Your task to perform on an android device: check data usage Image 0: 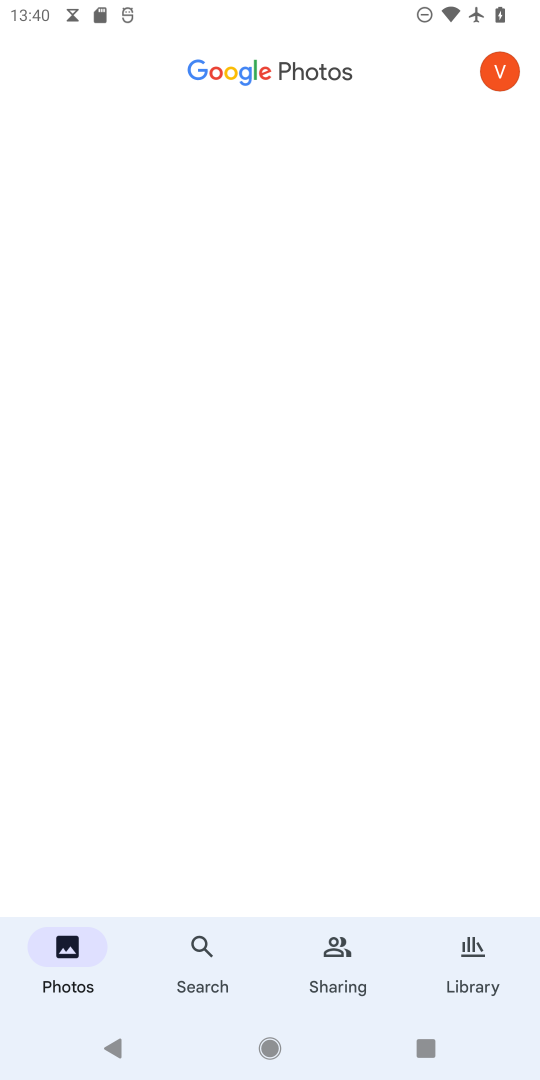
Step 0: press home button
Your task to perform on an android device: check data usage Image 1: 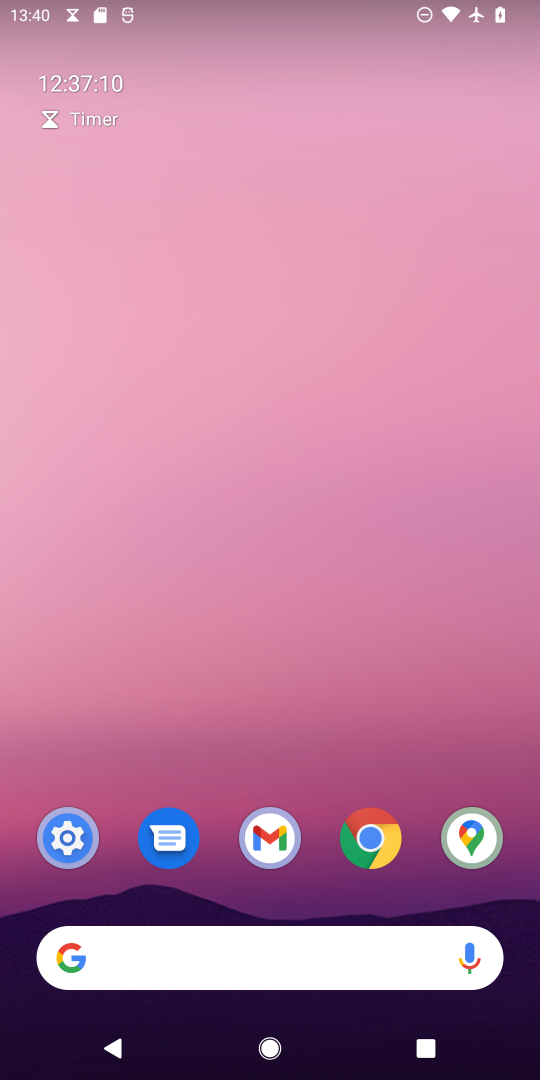
Step 1: click (63, 841)
Your task to perform on an android device: check data usage Image 2: 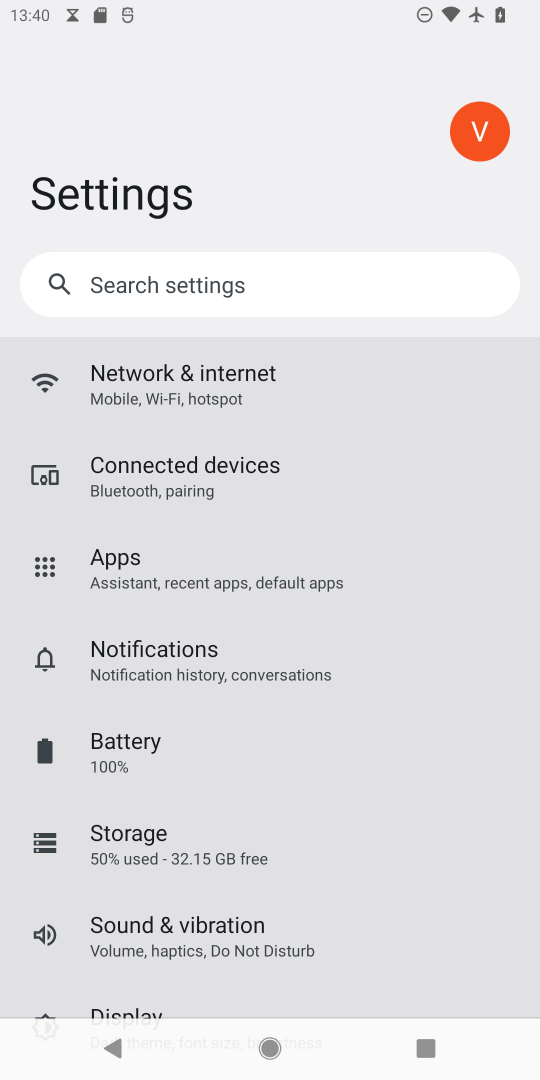
Step 2: click (249, 280)
Your task to perform on an android device: check data usage Image 3: 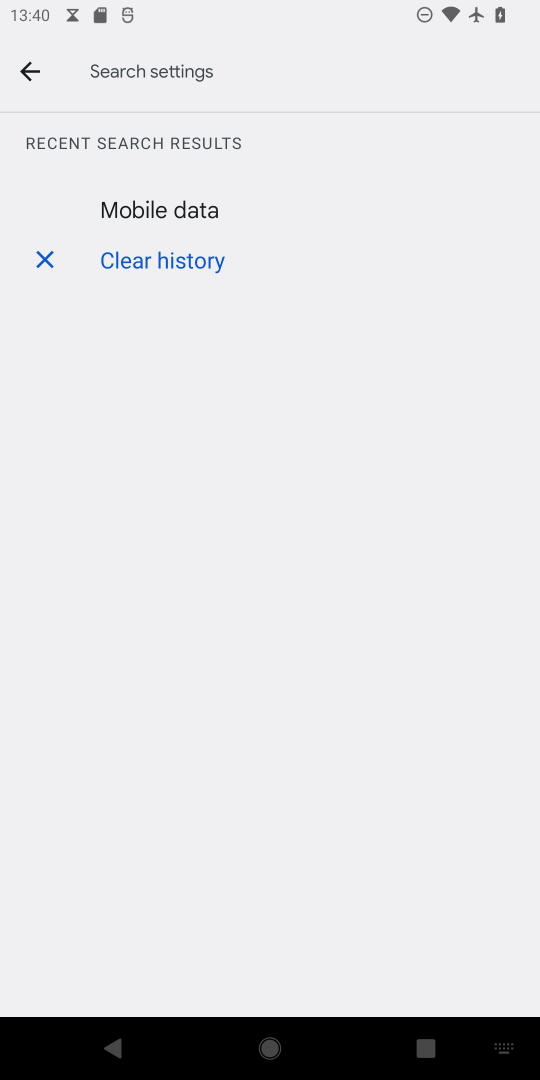
Step 3: click (139, 223)
Your task to perform on an android device: check data usage Image 4: 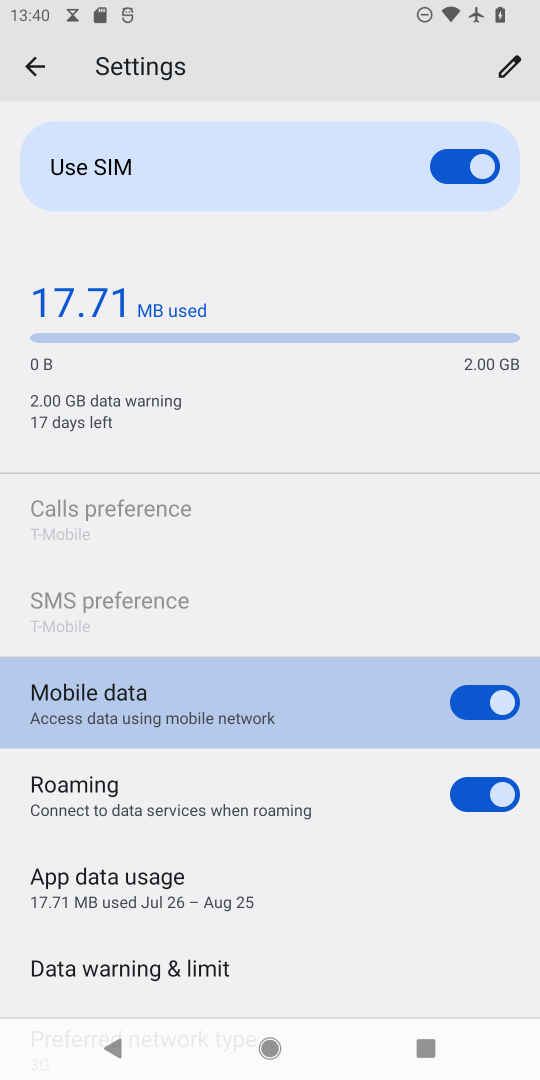
Step 4: click (111, 876)
Your task to perform on an android device: check data usage Image 5: 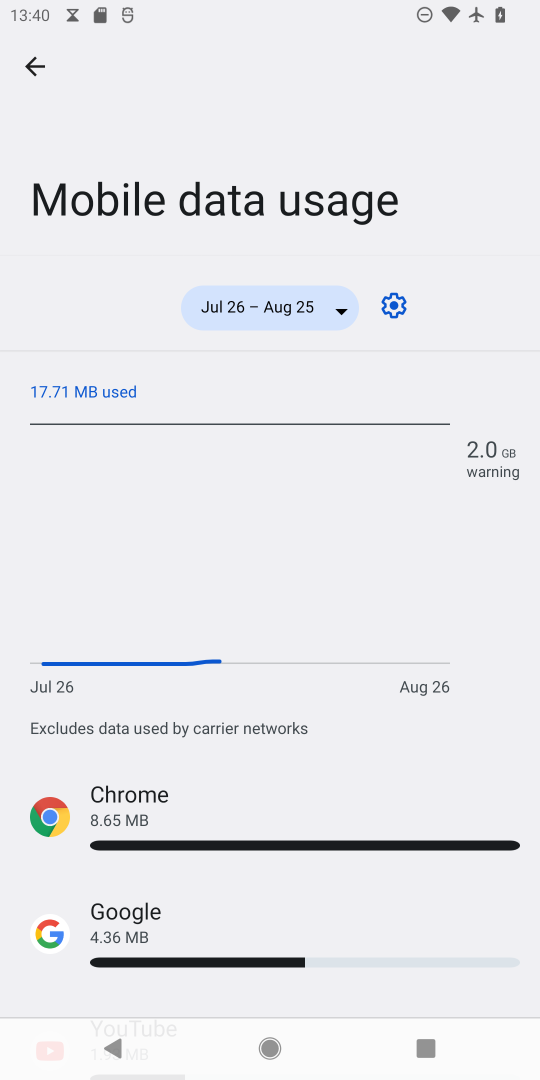
Step 5: task complete